Your task to perform on an android device: turn off data saver in the chrome app Image 0: 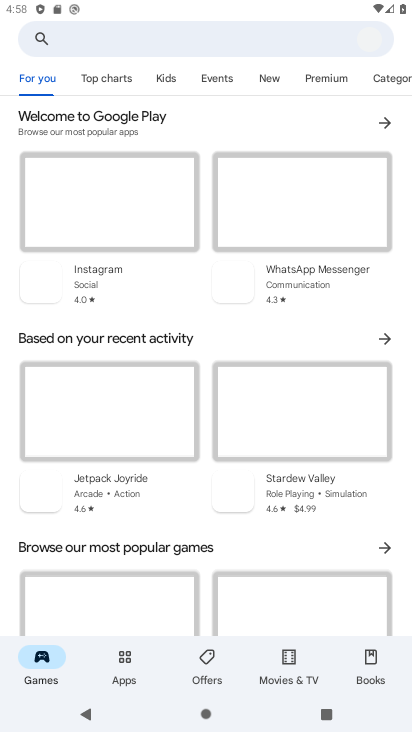
Step 0: press home button
Your task to perform on an android device: turn off data saver in the chrome app Image 1: 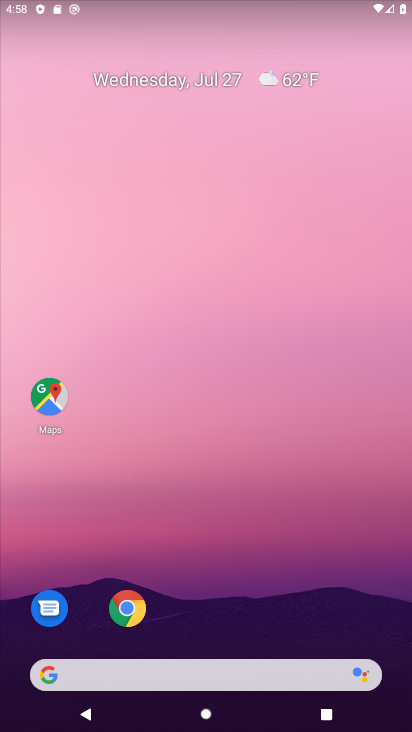
Step 1: click (115, 607)
Your task to perform on an android device: turn off data saver in the chrome app Image 2: 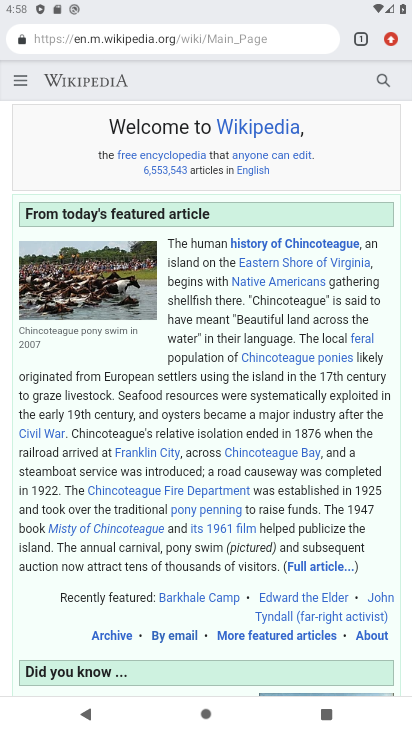
Step 2: click (387, 35)
Your task to perform on an android device: turn off data saver in the chrome app Image 3: 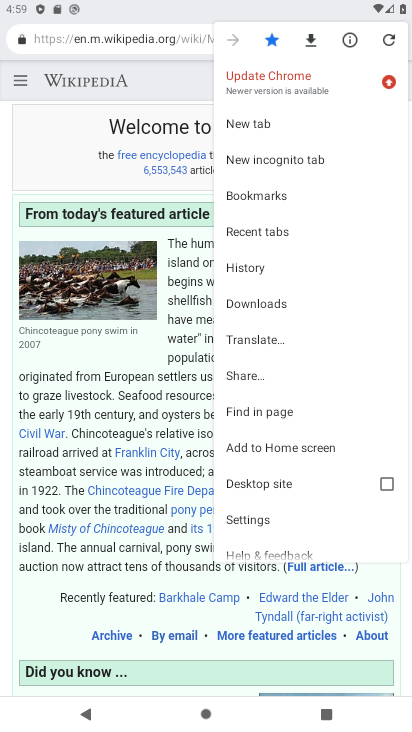
Step 3: click (297, 512)
Your task to perform on an android device: turn off data saver in the chrome app Image 4: 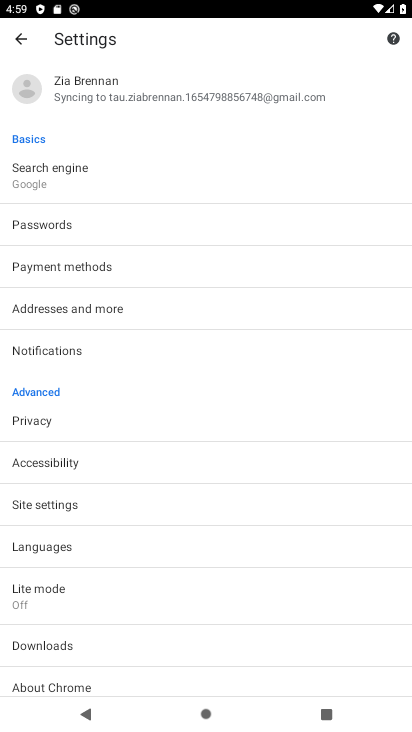
Step 4: click (91, 588)
Your task to perform on an android device: turn off data saver in the chrome app Image 5: 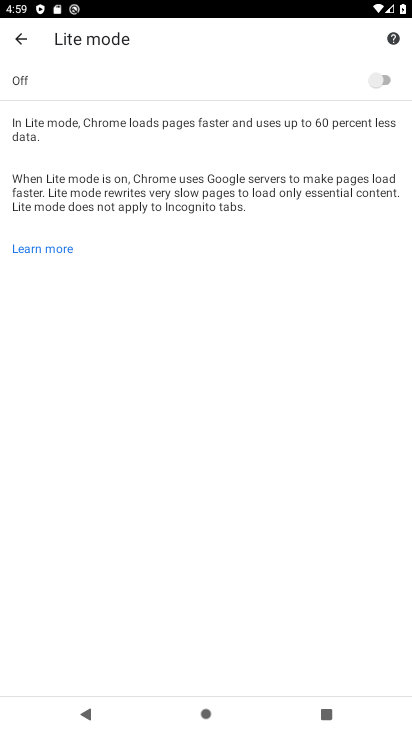
Step 5: task complete